Your task to perform on an android device: refresh tabs in the chrome app Image 0: 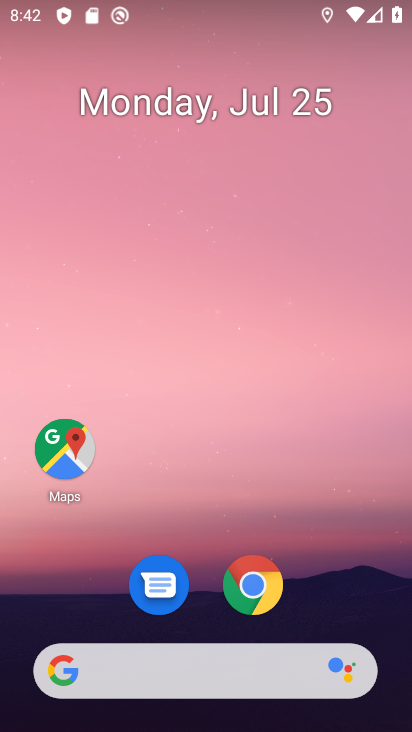
Step 0: press home button
Your task to perform on an android device: refresh tabs in the chrome app Image 1: 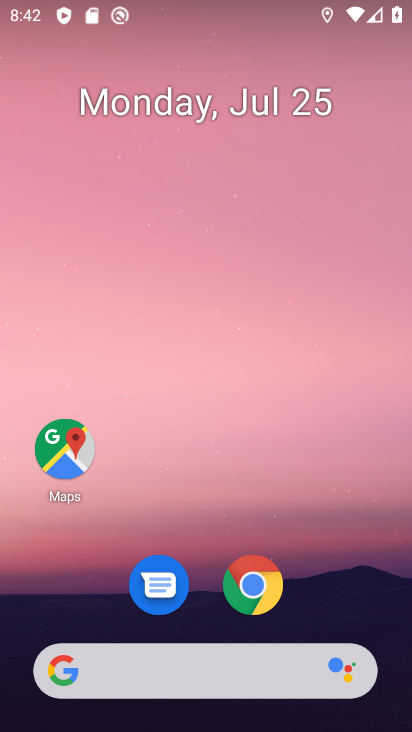
Step 1: click (251, 588)
Your task to perform on an android device: refresh tabs in the chrome app Image 2: 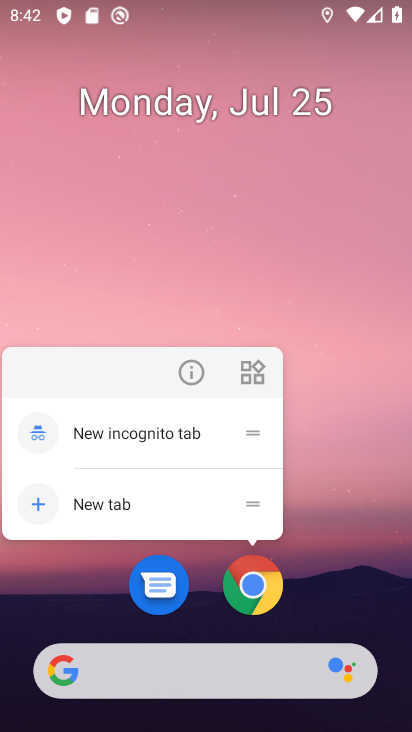
Step 2: click (248, 579)
Your task to perform on an android device: refresh tabs in the chrome app Image 3: 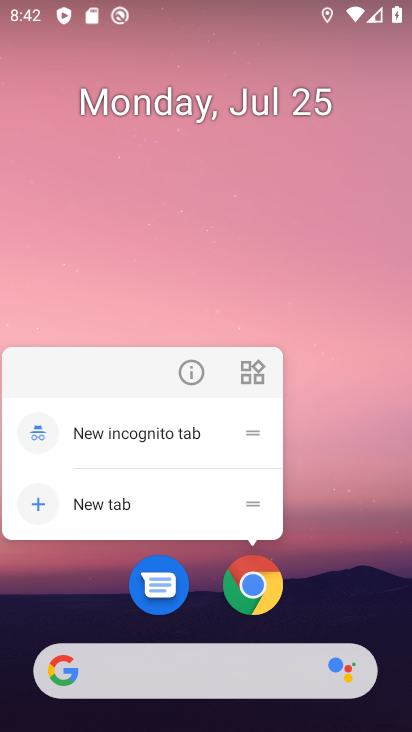
Step 3: click (249, 585)
Your task to perform on an android device: refresh tabs in the chrome app Image 4: 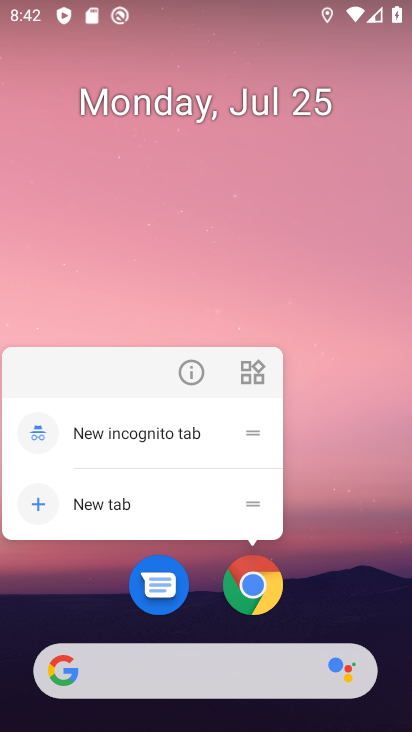
Step 4: click (249, 583)
Your task to perform on an android device: refresh tabs in the chrome app Image 5: 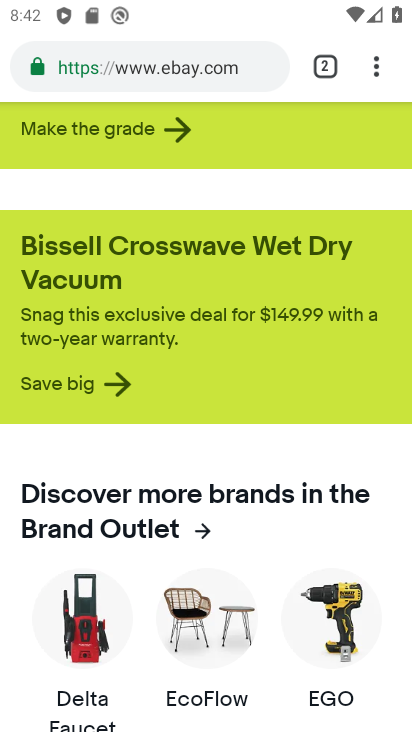
Step 5: click (373, 81)
Your task to perform on an android device: refresh tabs in the chrome app Image 6: 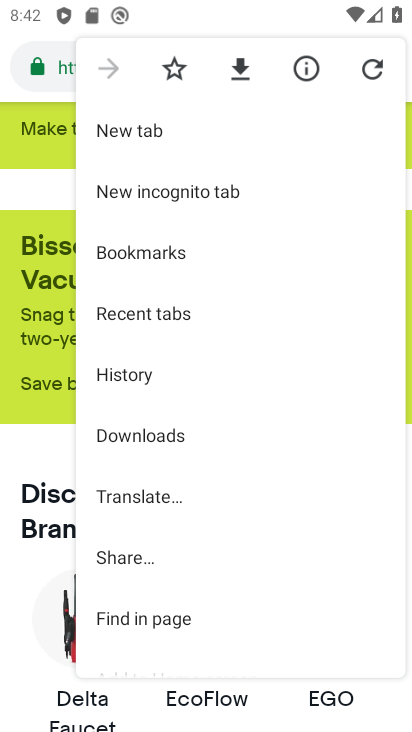
Step 6: click (363, 65)
Your task to perform on an android device: refresh tabs in the chrome app Image 7: 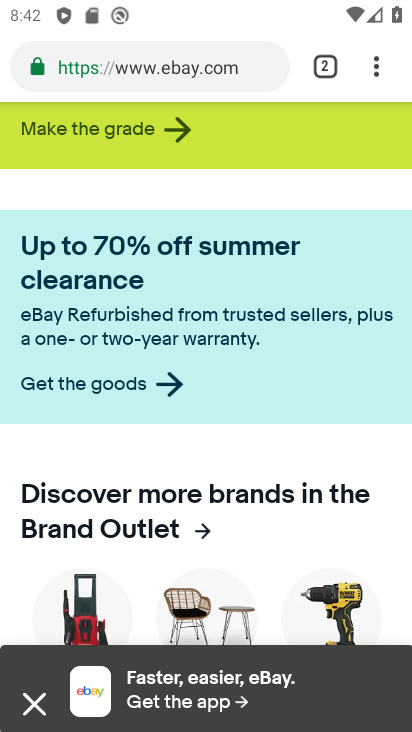
Step 7: task complete